Your task to perform on an android device: star an email in the gmail app Image 0: 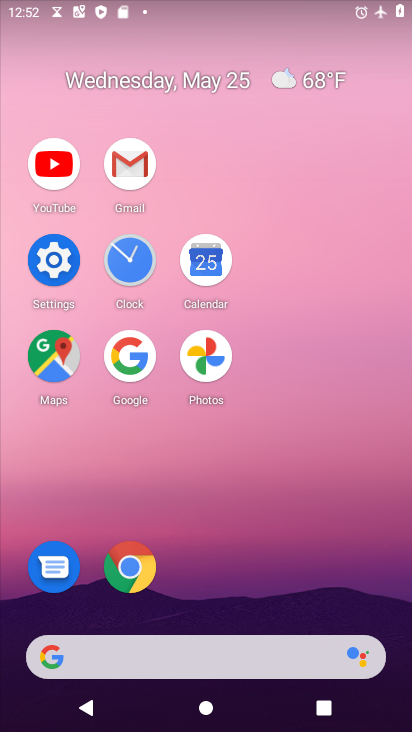
Step 0: click (124, 179)
Your task to perform on an android device: star an email in the gmail app Image 1: 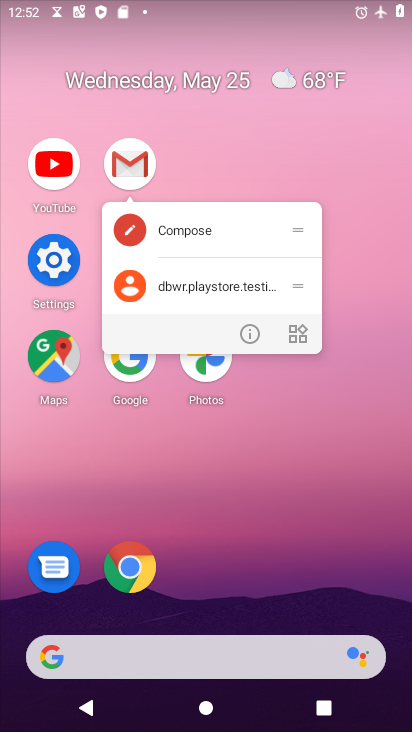
Step 1: click (124, 179)
Your task to perform on an android device: star an email in the gmail app Image 2: 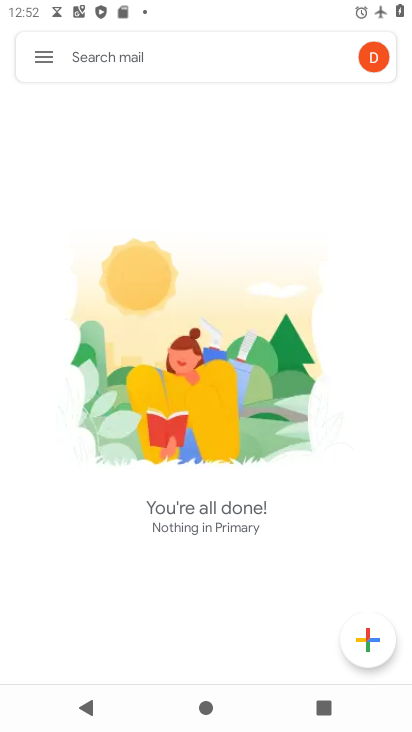
Step 2: click (39, 53)
Your task to perform on an android device: star an email in the gmail app Image 3: 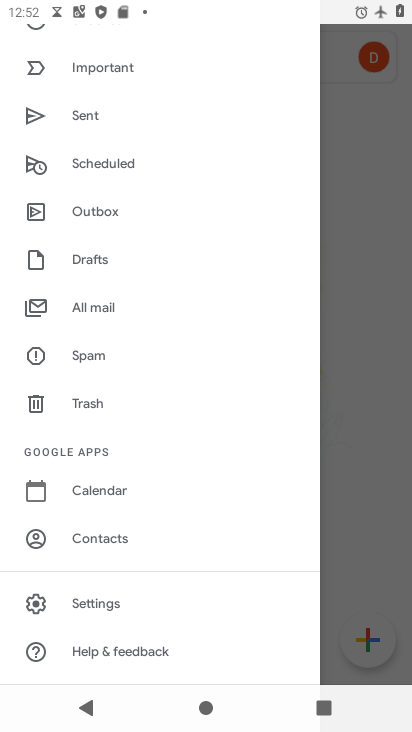
Step 3: click (134, 306)
Your task to perform on an android device: star an email in the gmail app Image 4: 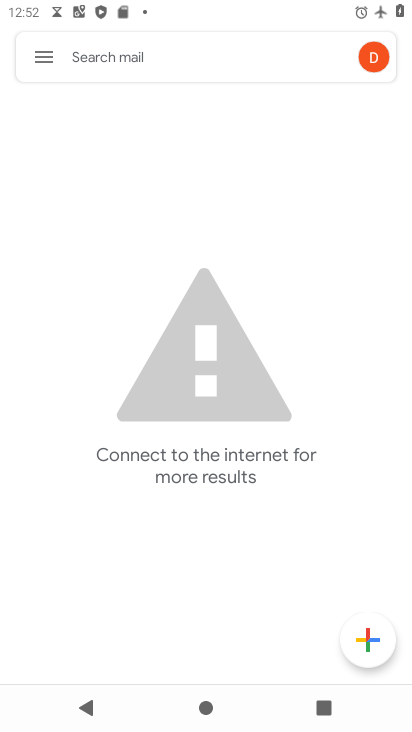
Step 4: task complete